Your task to perform on an android device: Open settings on Google Maps Image 0: 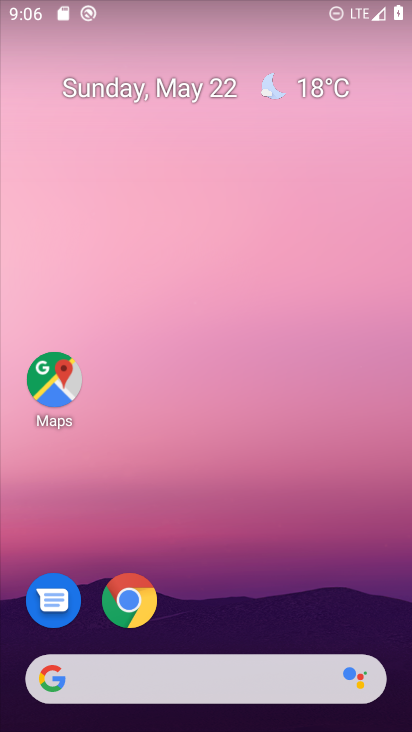
Step 0: drag from (345, 559) to (284, 298)
Your task to perform on an android device: Open settings on Google Maps Image 1: 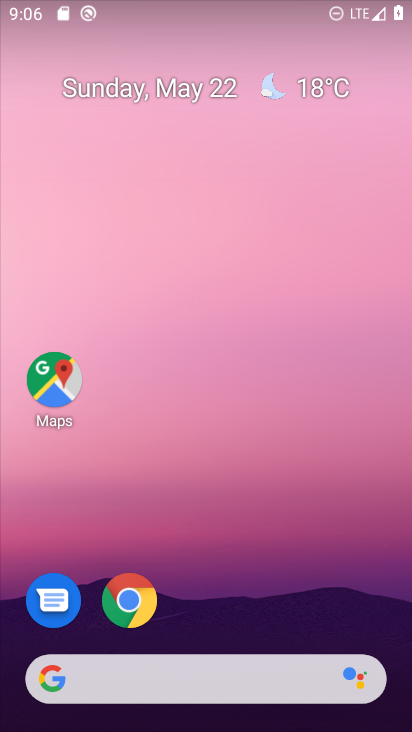
Step 1: drag from (342, 630) to (393, 443)
Your task to perform on an android device: Open settings on Google Maps Image 2: 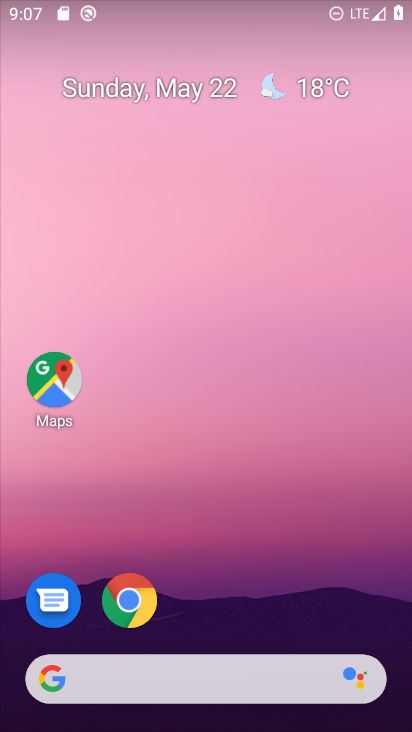
Step 2: click (55, 375)
Your task to perform on an android device: Open settings on Google Maps Image 3: 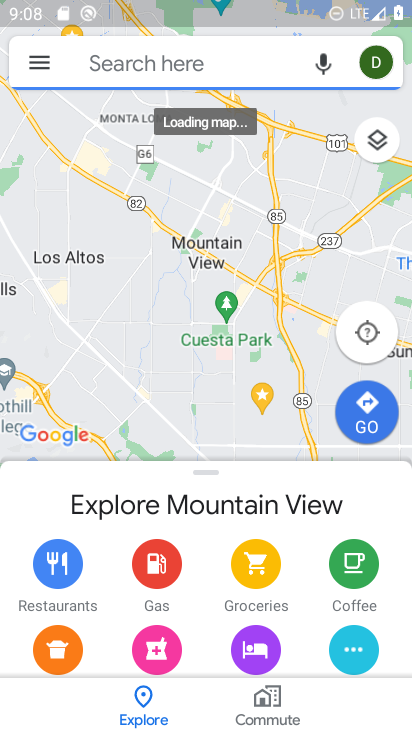
Step 3: click (34, 64)
Your task to perform on an android device: Open settings on Google Maps Image 4: 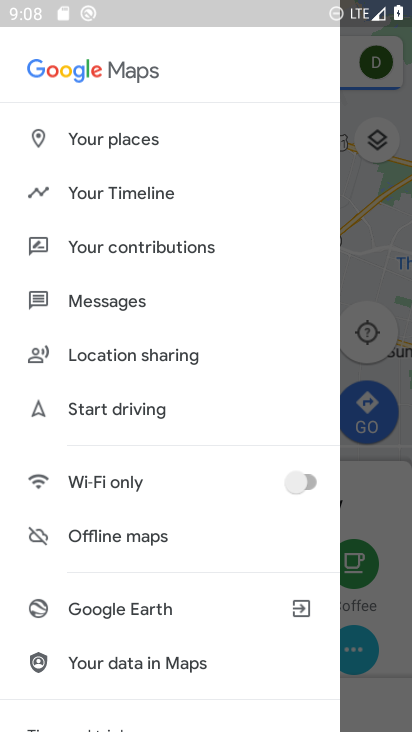
Step 4: drag from (192, 630) to (194, 165)
Your task to perform on an android device: Open settings on Google Maps Image 5: 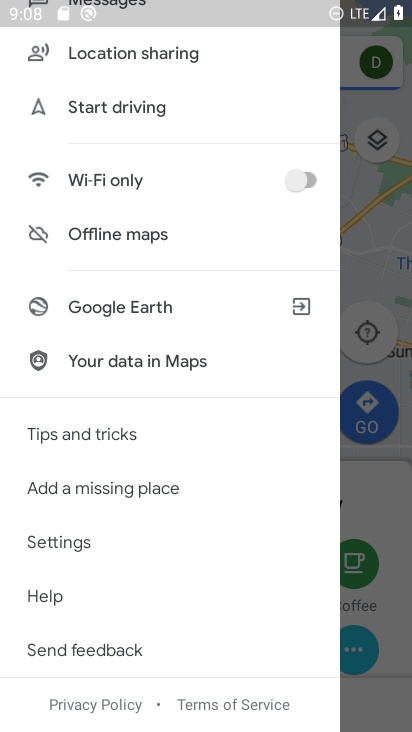
Step 5: click (105, 545)
Your task to perform on an android device: Open settings on Google Maps Image 6: 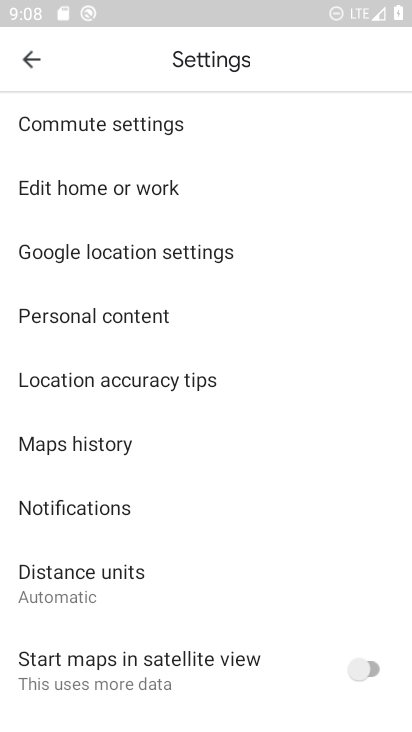
Step 6: task complete